Your task to perform on an android device: Show me popular videos on Youtube Image 0: 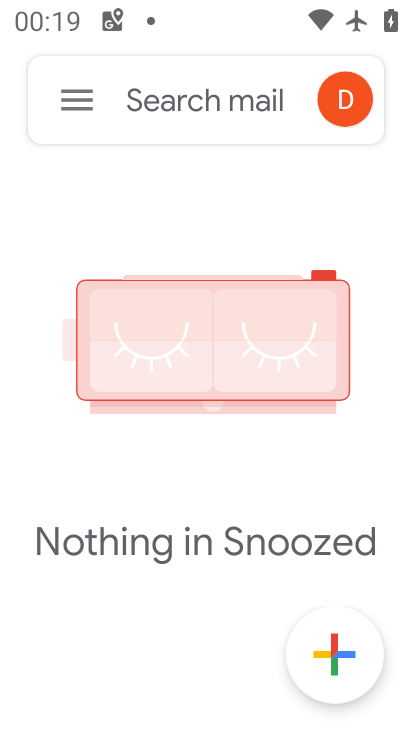
Step 0: press home button
Your task to perform on an android device: Show me popular videos on Youtube Image 1: 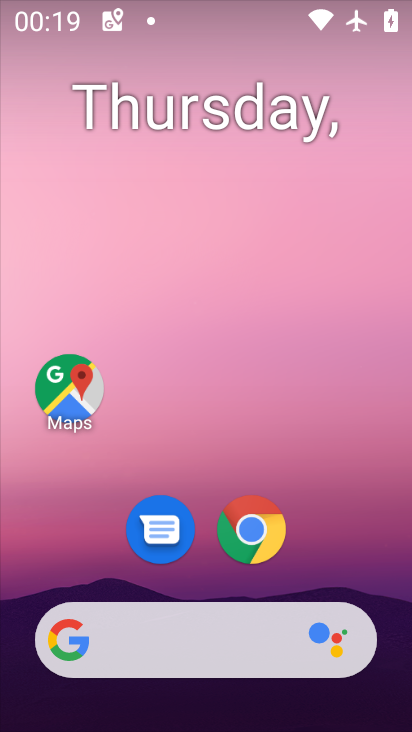
Step 1: drag from (400, 637) to (288, 27)
Your task to perform on an android device: Show me popular videos on Youtube Image 2: 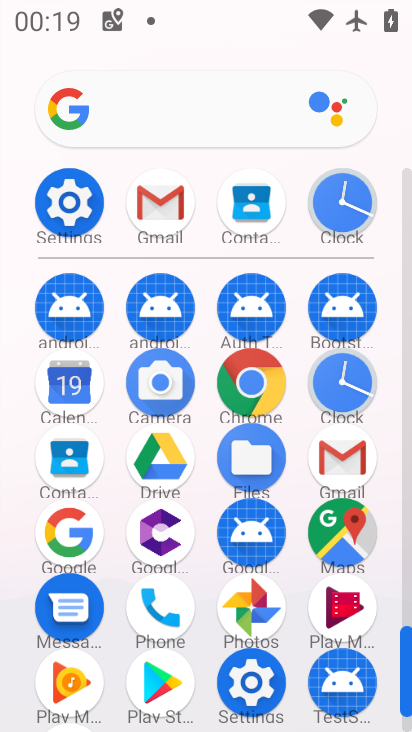
Step 2: click (405, 606)
Your task to perform on an android device: Show me popular videos on Youtube Image 3: 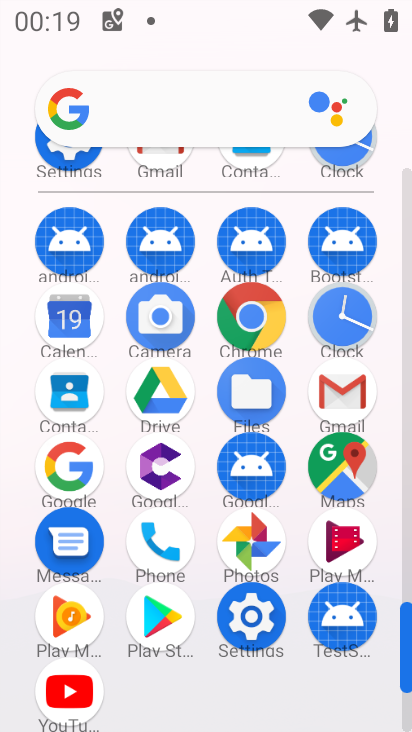
Step 3: click (69, 689)
Your task to perform on an android device: Show me popular videos on Youtube Image 4: 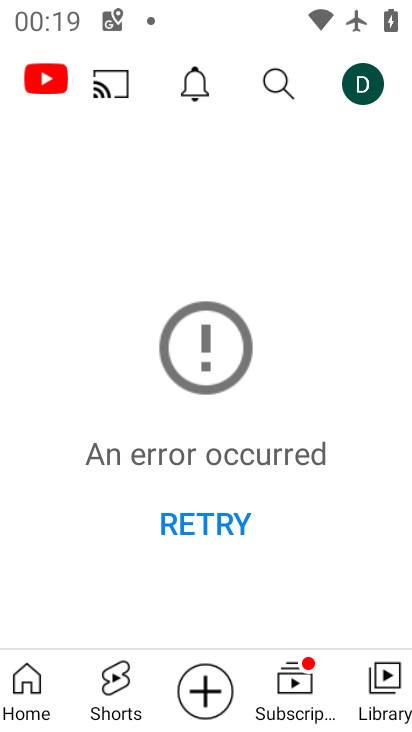
Step 4: click (208, 518)
Your task to perform on an android device: Show me popular videos on Youtube Image 5: 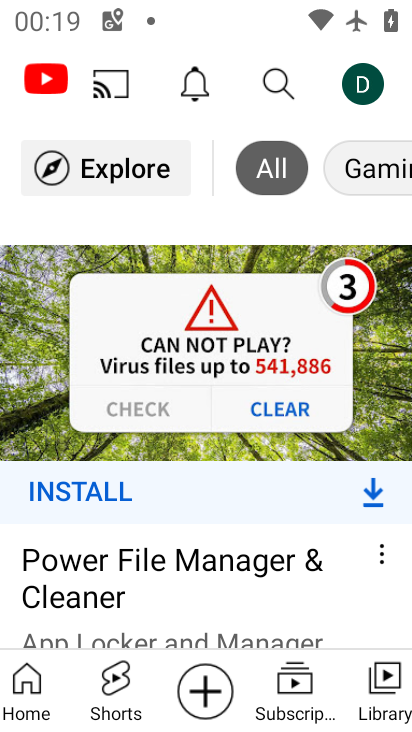
Step 5: click (113, 685)
Your task to perform on an android device: Show me popular videos on Youtube Image 6: 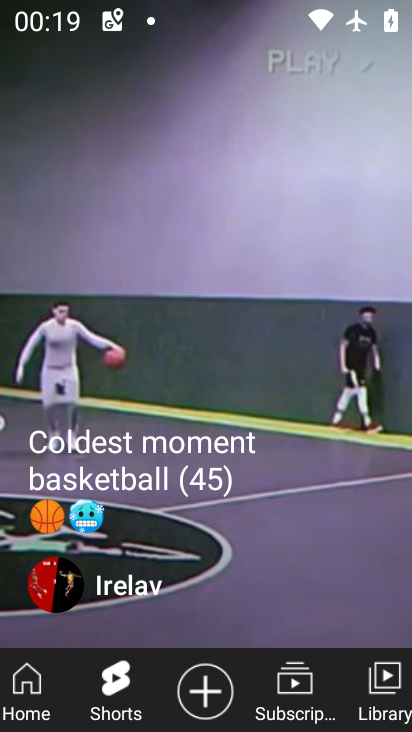
Step 6: click (29, 692)
Your task to perform on an android device: Show me popular videos on Youtube Image 7: 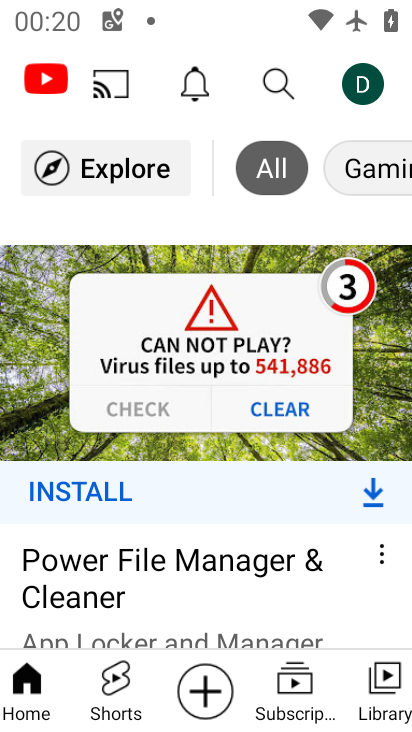
Step 7: task complete